Your task to perform on an android device: Open Google Image 0: 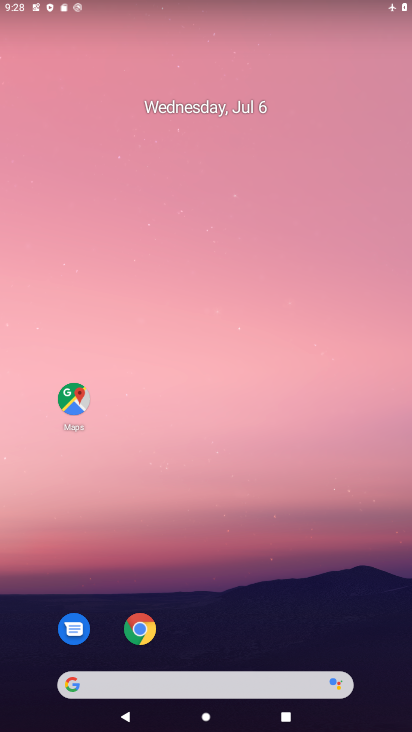
Step 0: drag from (216, 624) to (218, 96)
Your task to perform on an android device: Open Google Image 1: 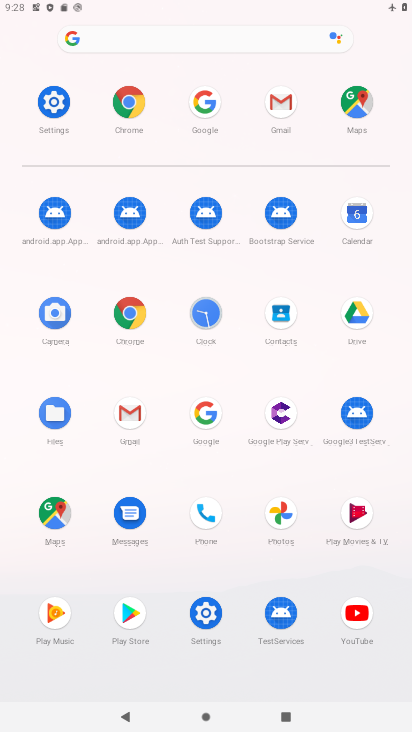
Step 1: click (202, 101)
Your task to perform on an android device: Open Google Image 2: 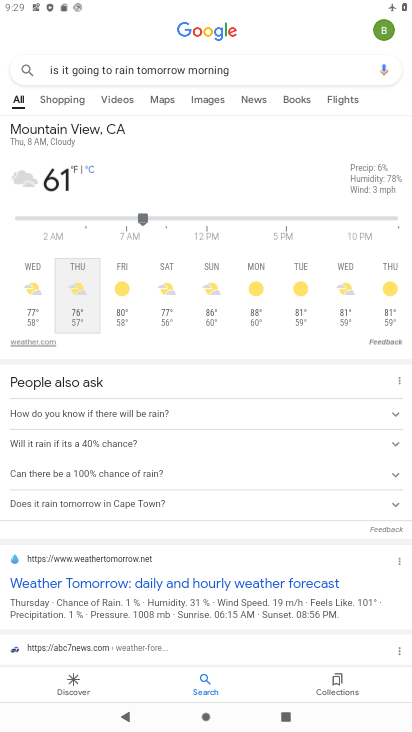
Step 2: task complete